Your task to perform on an android device: What's the weather? Image 0: 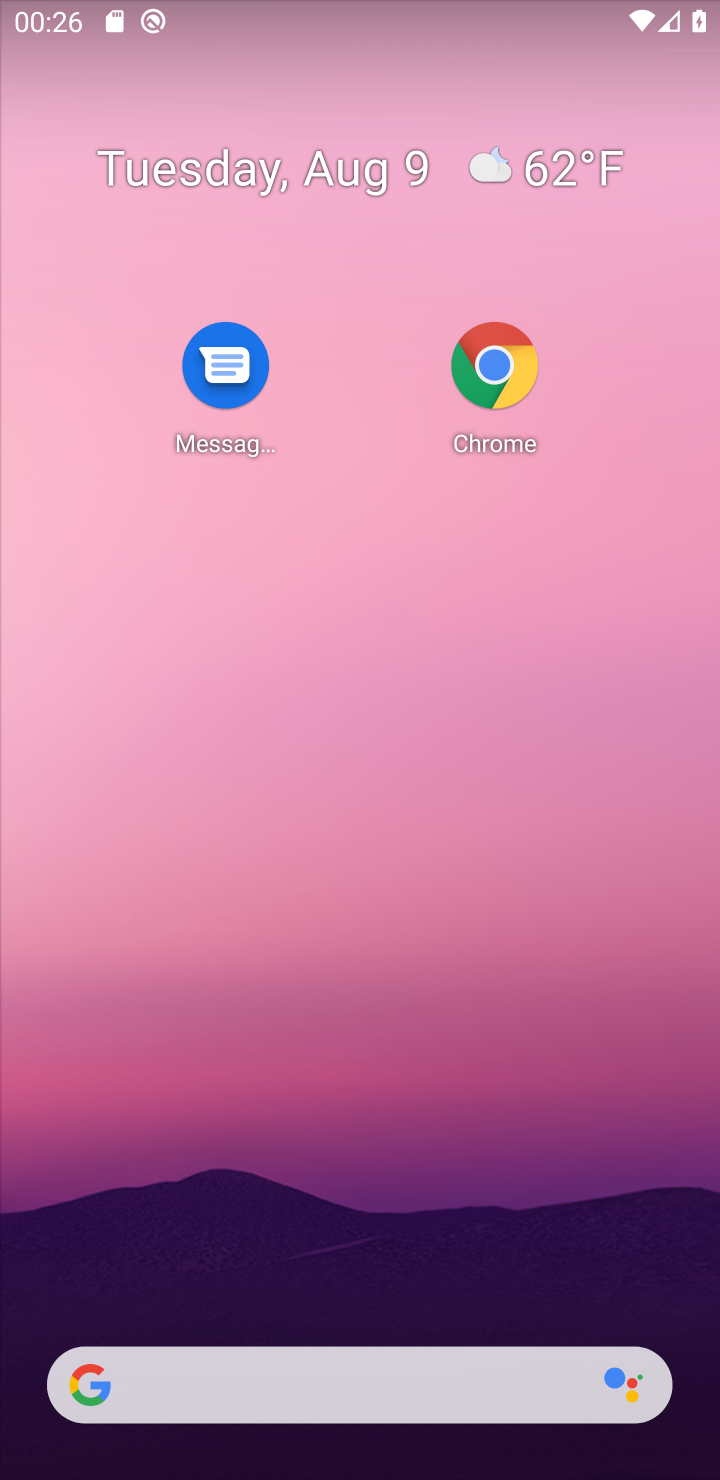
Step 0: drag from (327, 926) to (352, 355)
Your task to perform on an android device: What's the weather? Image 1: 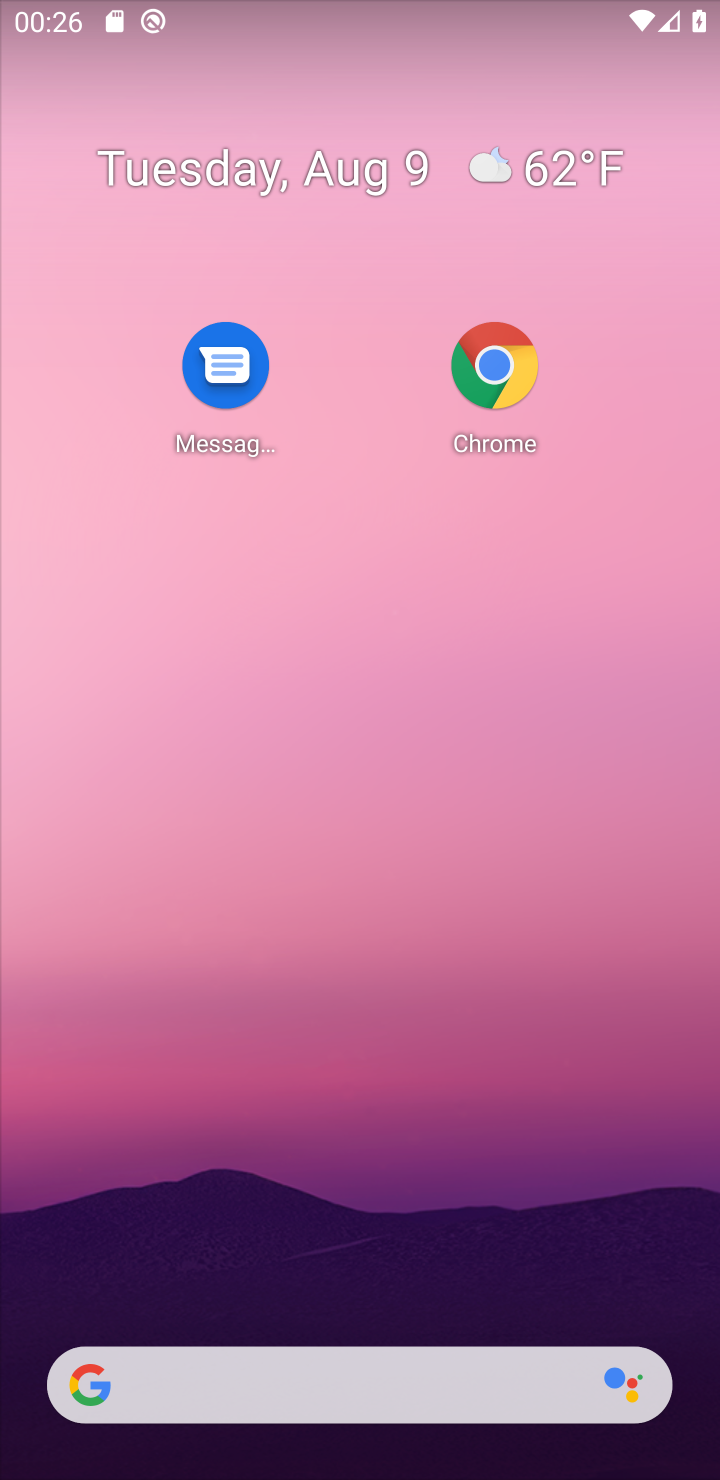
Step 1: drag from (297, 1214) to (313, 359)
Your task to perform on an android device: What's the weather? Image 2: 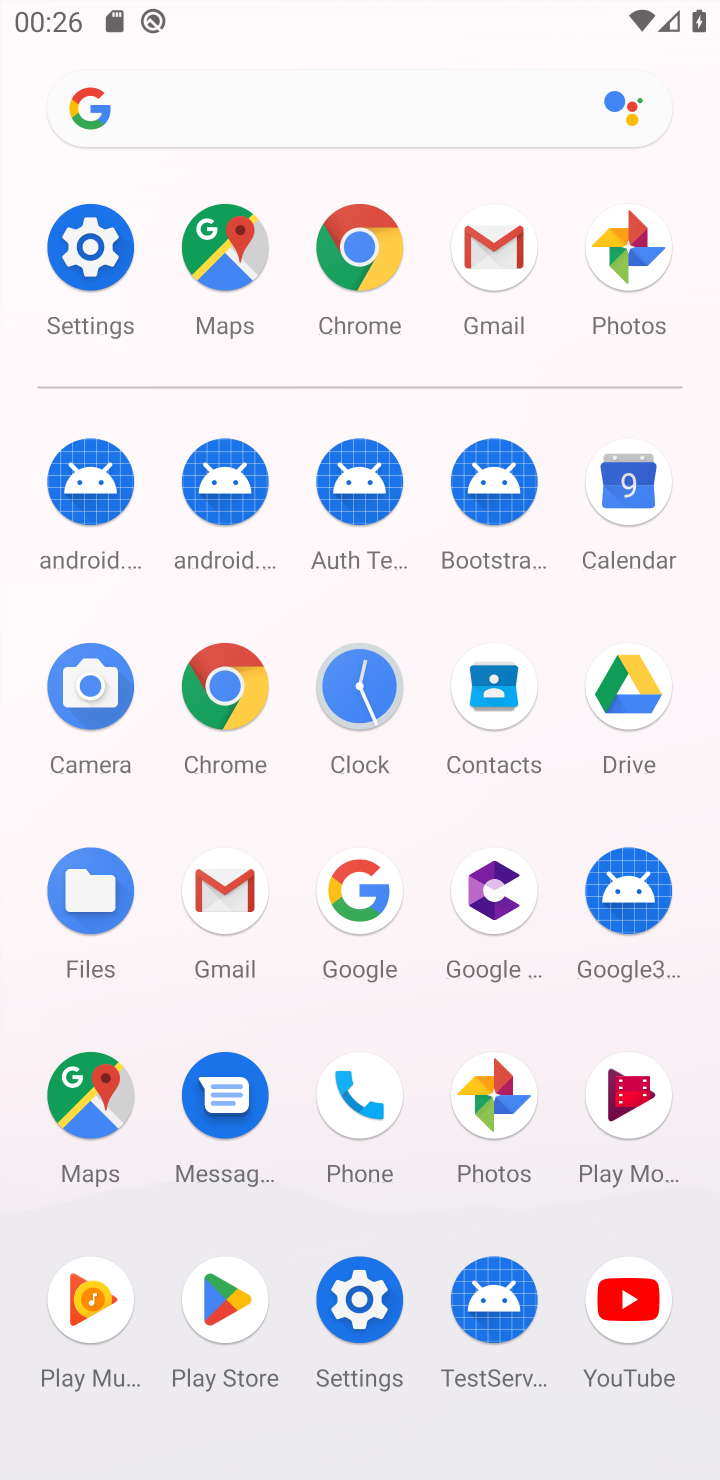
Step 2: click (219, 647)
Your task to perform on an android device: What's the weather? Image 3: 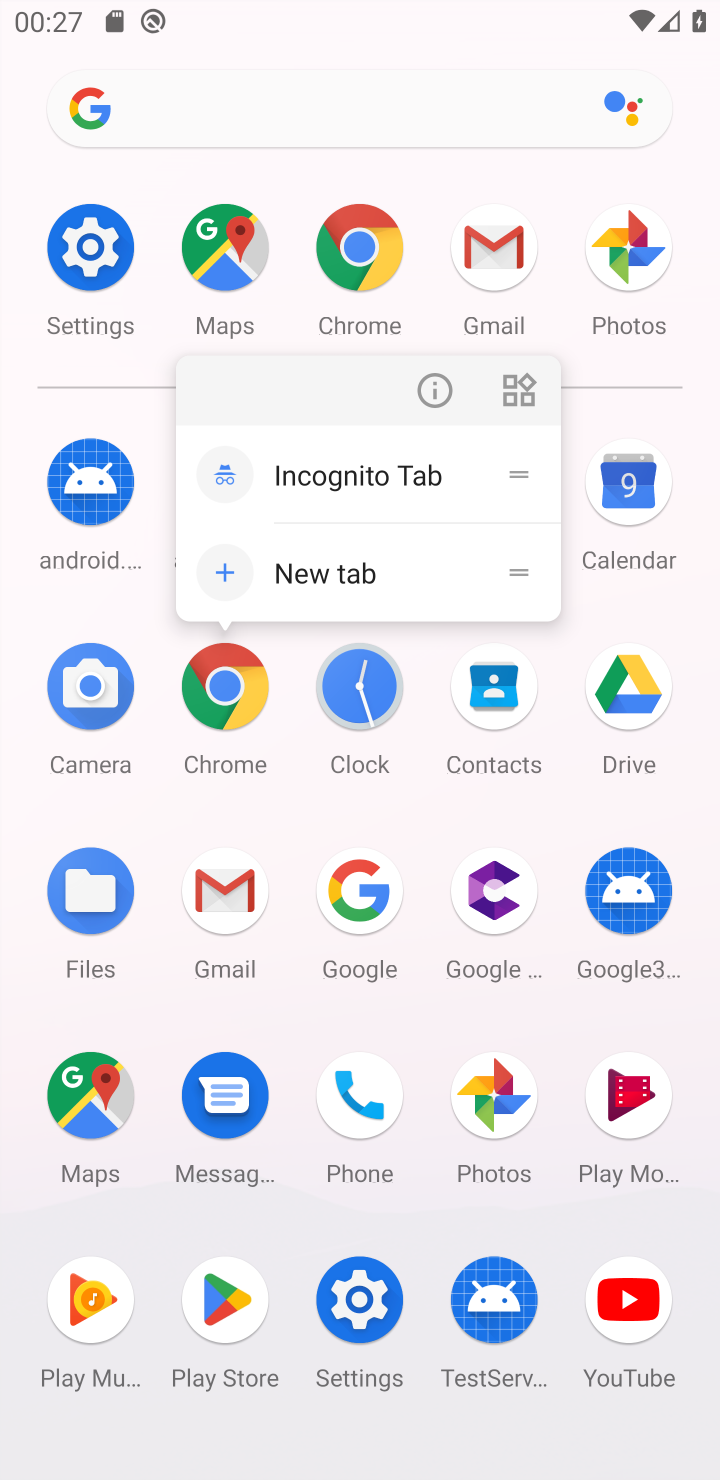
Step 3: click (207, 719)
Your task to perform on an android device: What's the weather? Image 4: 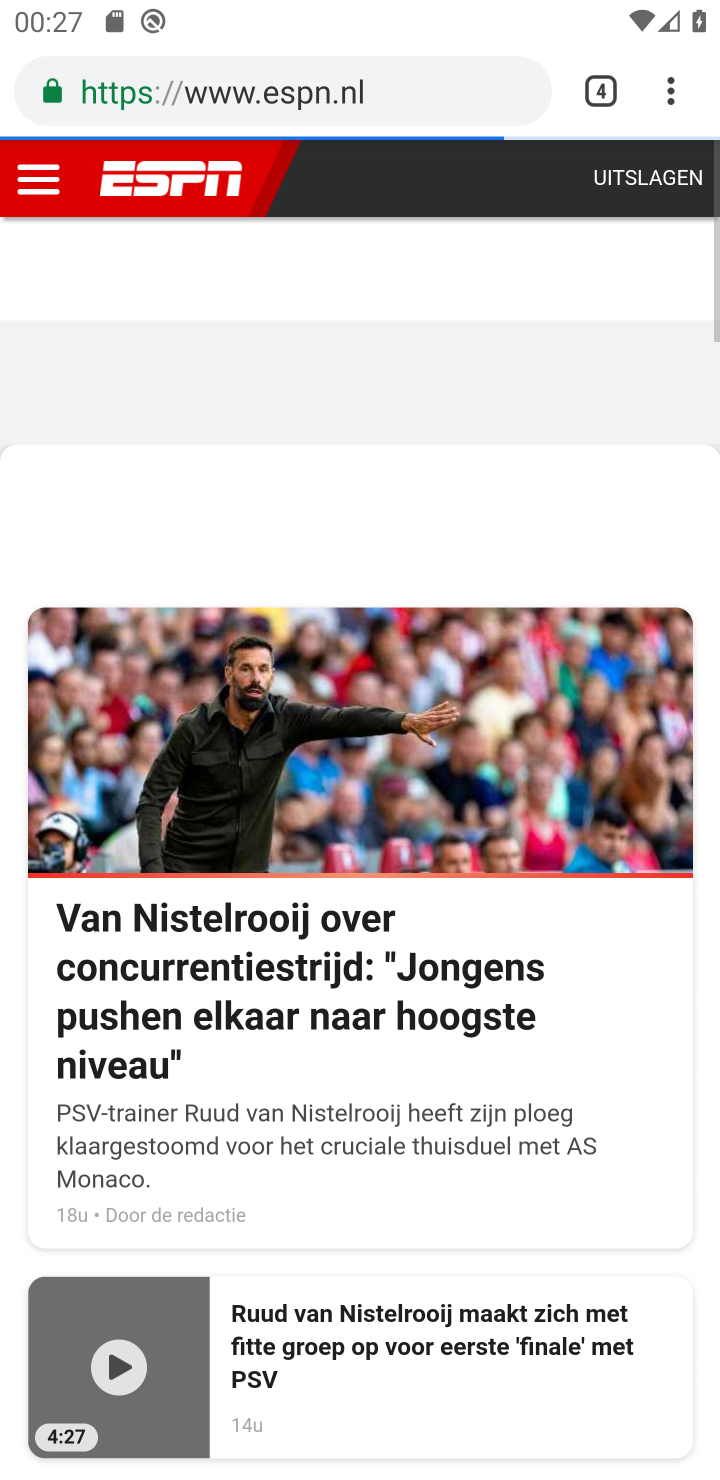
Step 4: click (683, 67)
Your task to perform on an android device: What's the weather? Image 5: 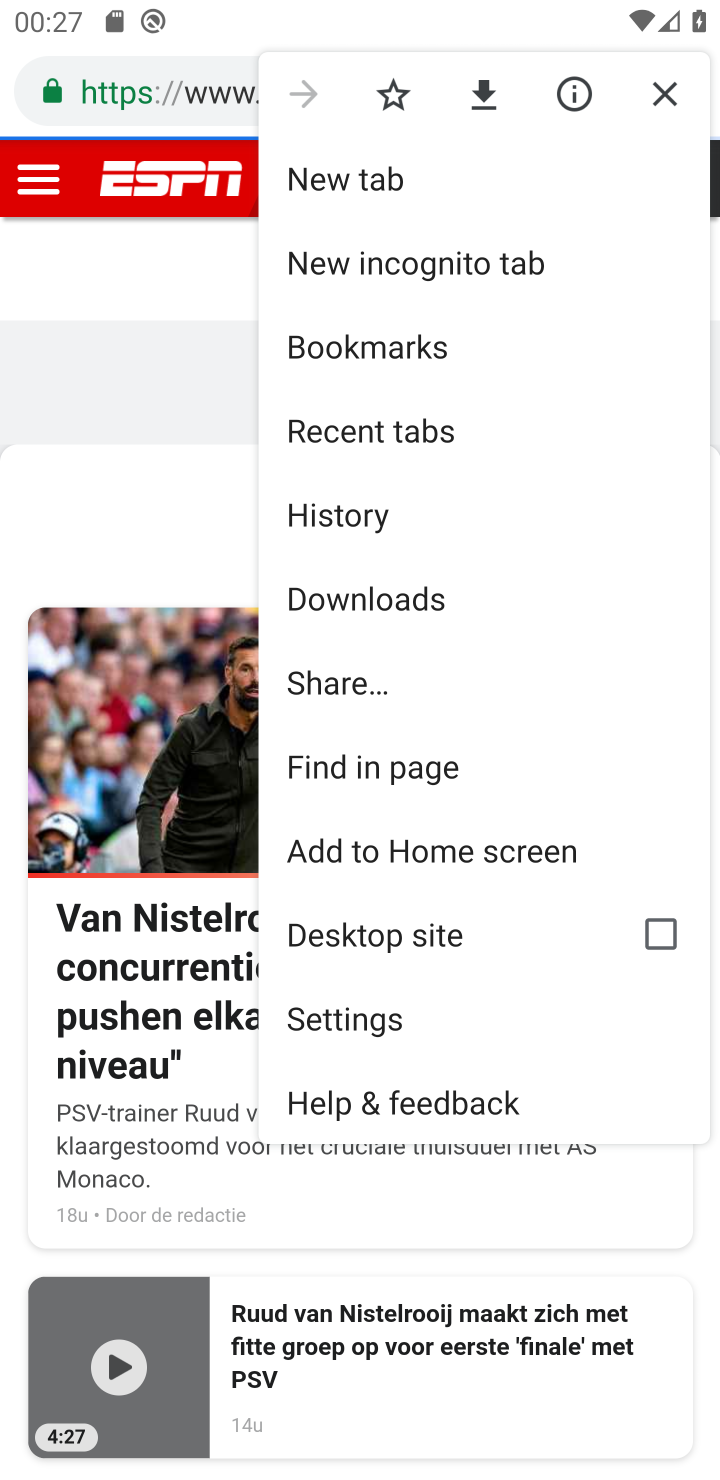
Step 5: click (436, 176)
Your task to perform on an android device: What's the weather? Image 6: 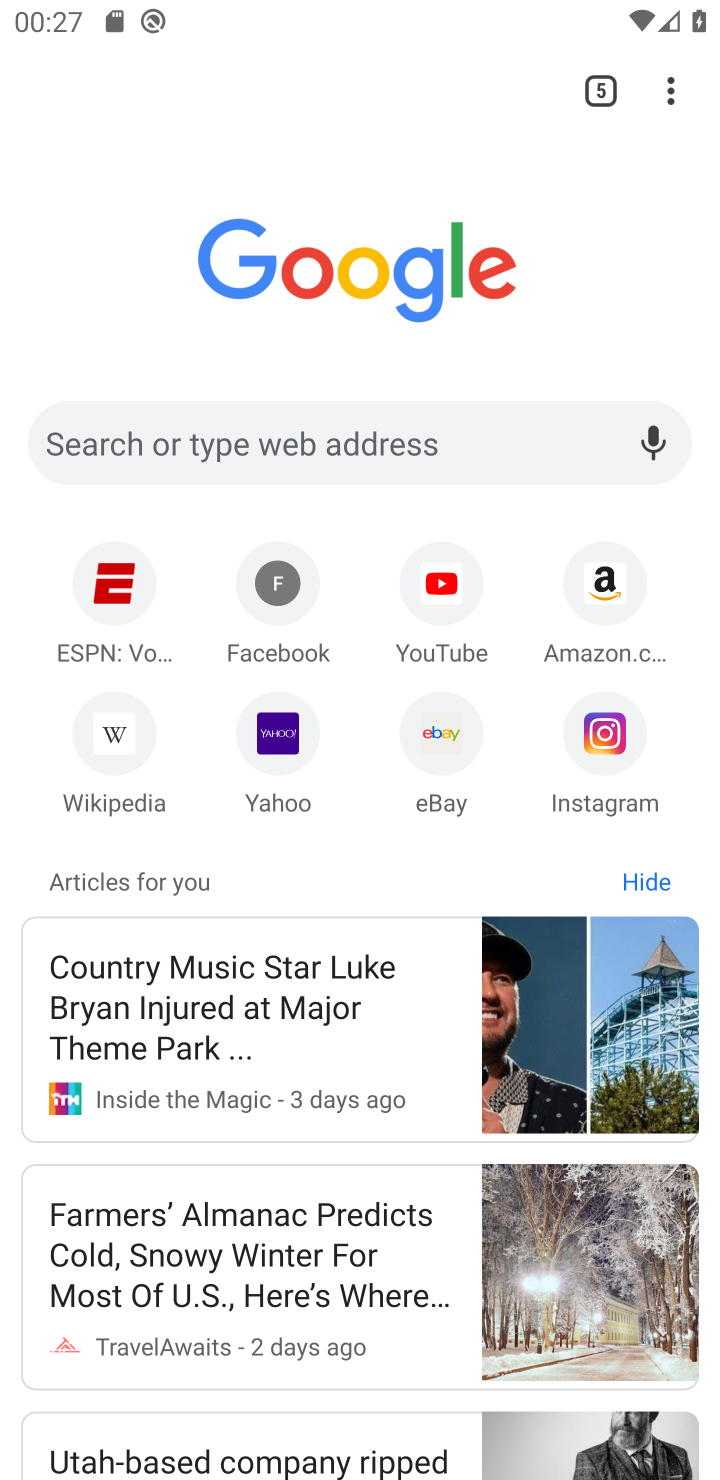
Step 6: click (346, 440)
Your task to perform on an android device: What's the weather? Image 7: 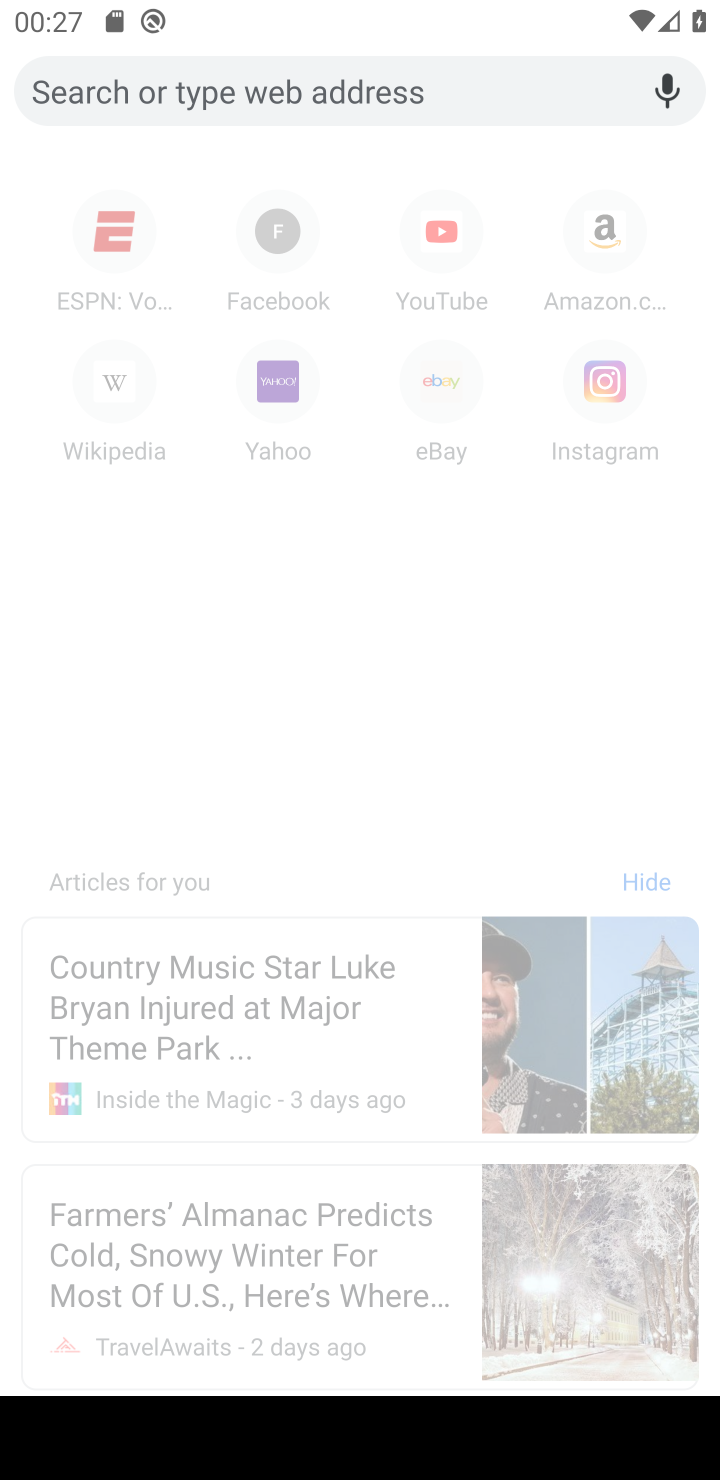
Step 7: type "What's the weather? "
Your task to perform on an android device: What's the weather? Image 8: 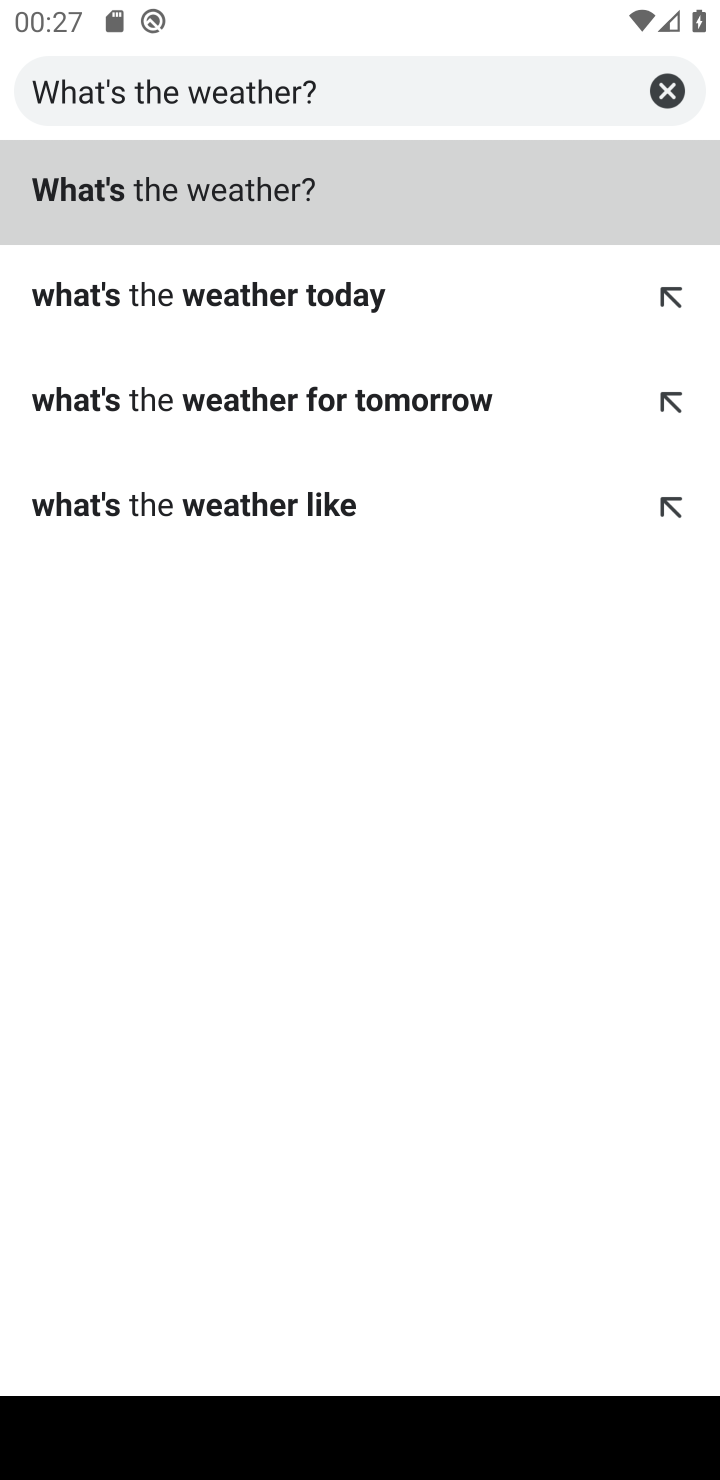
Step 8: click (285, 201)
Your task to perform on an android device: What's the weather? Image 9: 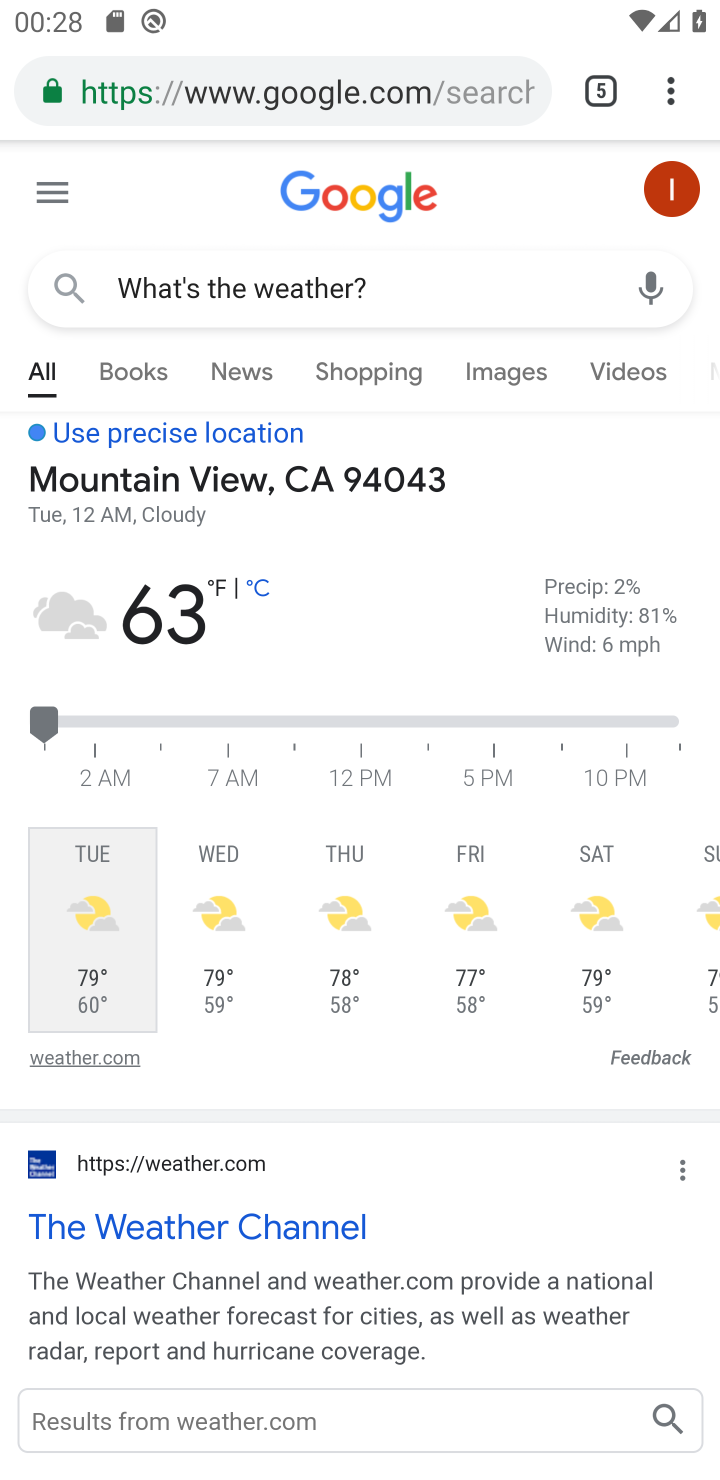
Step 9: task complete